Your task to perform on an android device: Open Android settings Image 0: 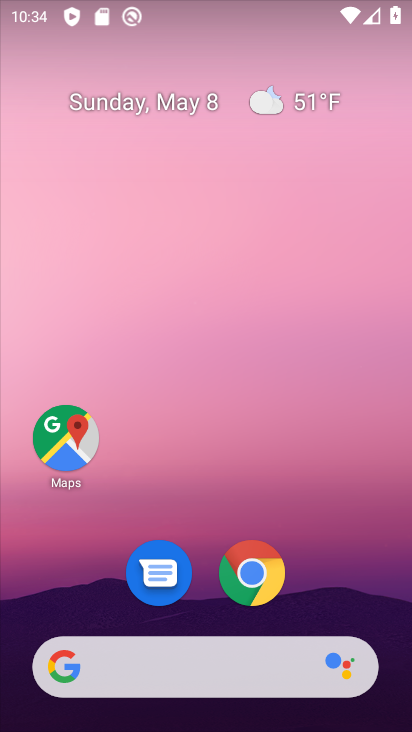
Step 0: drag from (154, 635) to (276, 62)
Your task to perform on an android device: Open Android settings Image 1: 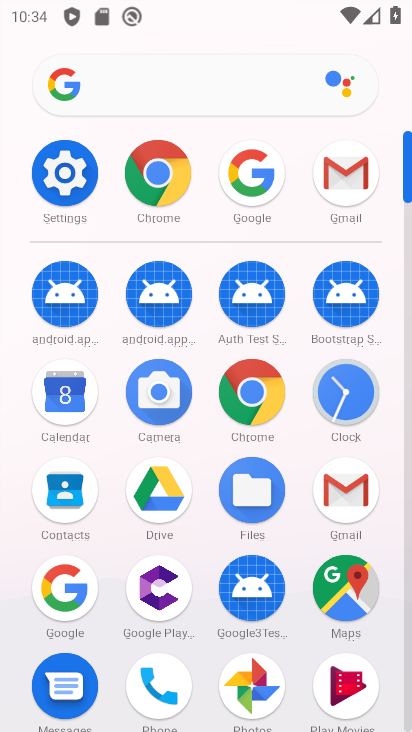
Step 1: click (55, 174)
Your task to perform on an android device: Open Android settings Image 2: 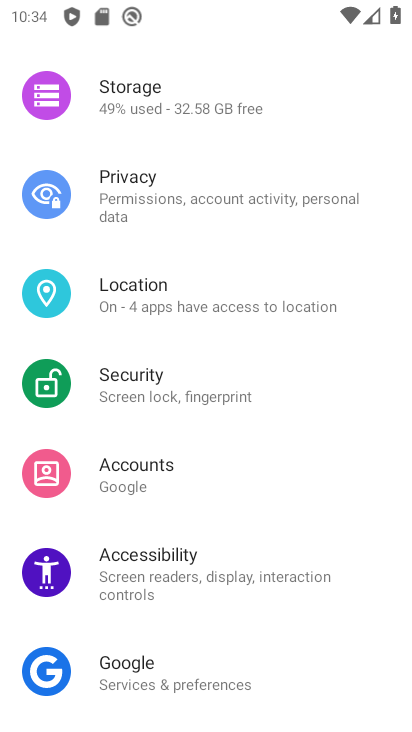
Step 2: task complete